Your task to perform on an android device: add a contact Image 0: 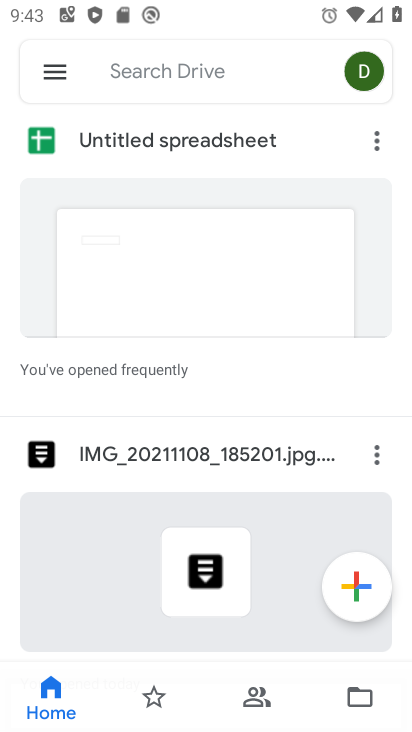
Step 0: press home button
Your task to perform on an android device: add a contact Image 1: 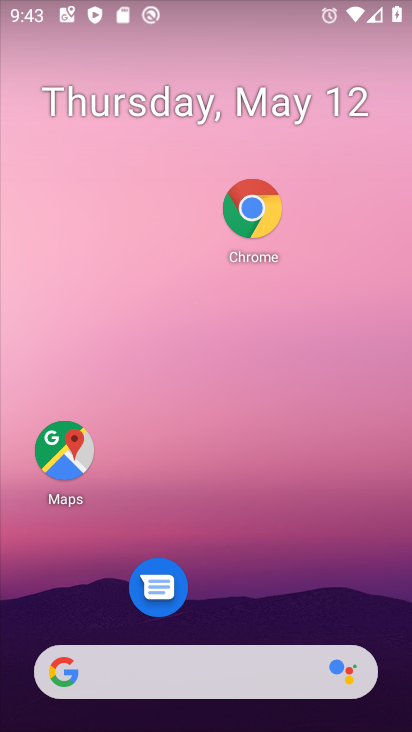
Step 1: drag from (268, 546) to (286, 259)
Your task to perform on an android device: add a contact Image 2: 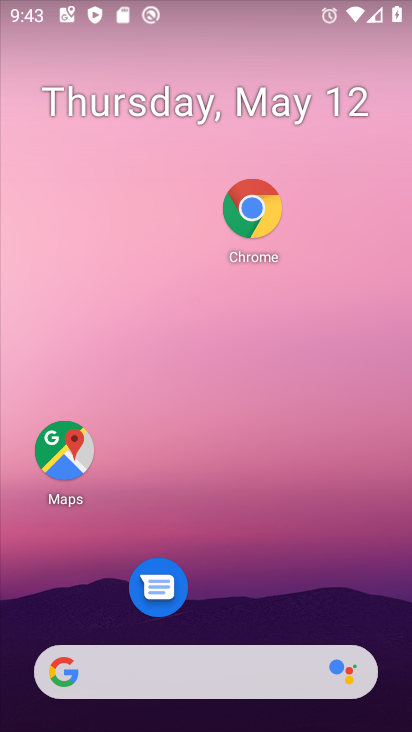
Step 2: drag from (303, 502) to (323, 245)
Your task to perform on an android device: add a contact Image 3: 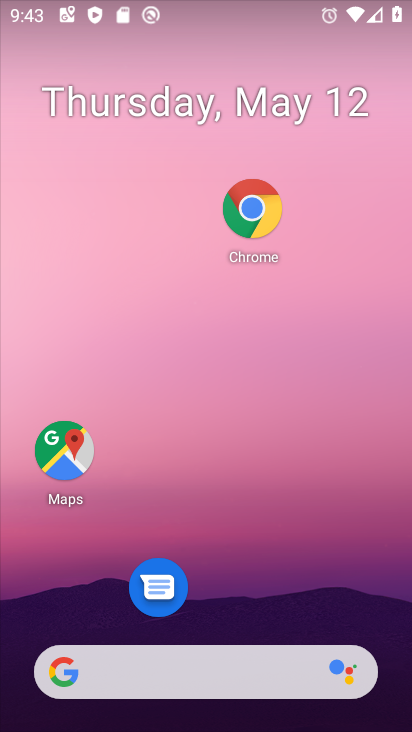
Step 3: drag from (288, 487) to (315, 11)
Your task to perform on an android device: add a contact Image 4: 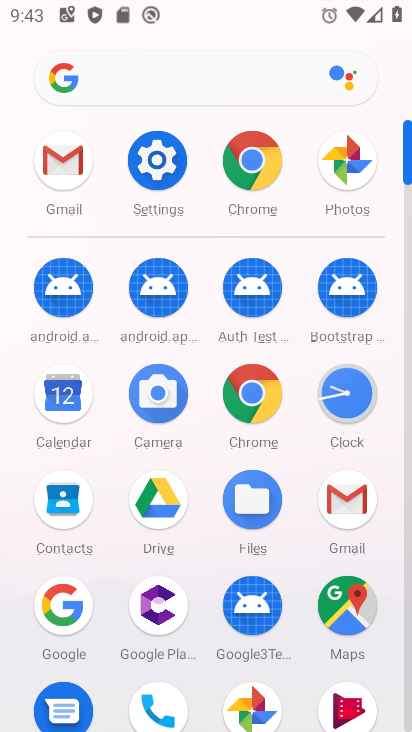
Step 4: click (156, 701)
Your task to perform on an android device: add a contact Image 5: 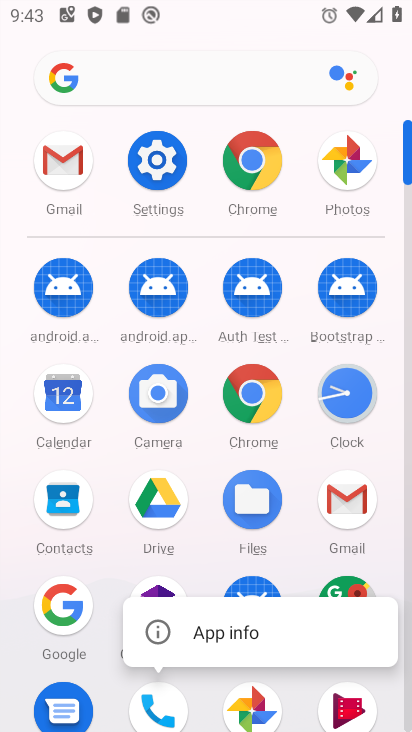
Step 5: drag from (219, 524) to (288, 182)
Your task to perform on an android device: add a contact Image 6: 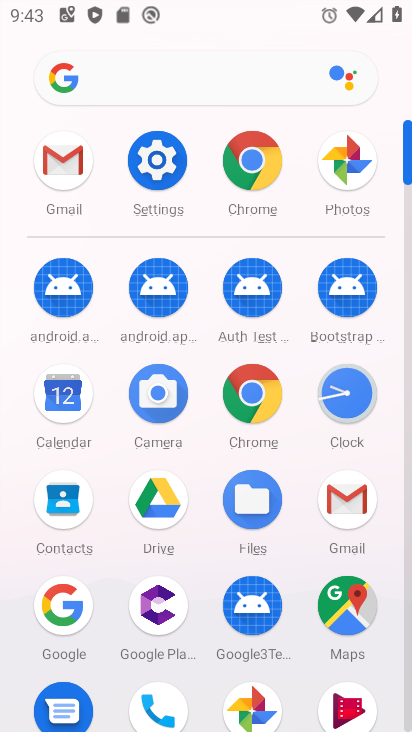
Step 6: drag from (256, 352) to (270, 130)
Your task to perform on an android device: add a contact Image 7: 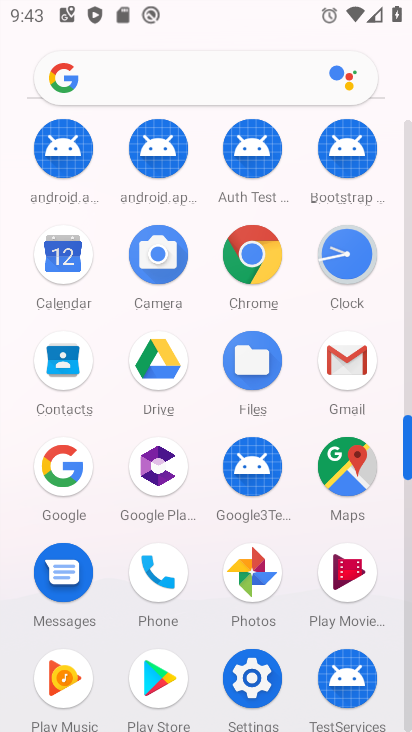
Step 7: click (152, 557)
Your task to perform on an android device: add a contact Image 8: 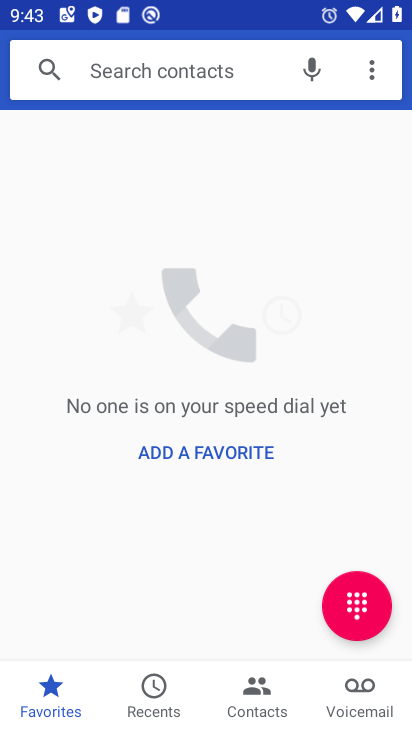
Step 8: click (165, 461)
Your task to perform on an android device: add a contact Image 9: 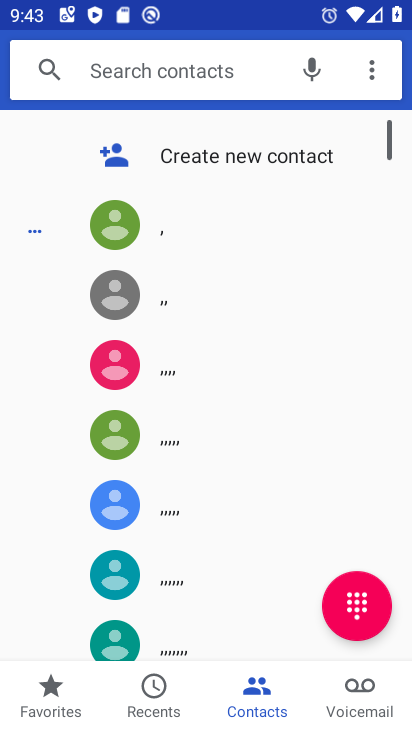
Step 9: click (213, 158)
Your task to perform on an android device: add a contact Image 10: 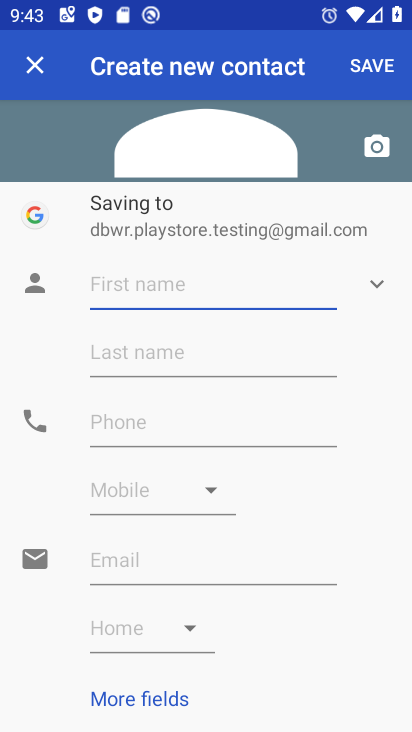
Step 10: type "mmmmmmmmmmmmmmmv"
Your task to perform on an android device: add a contact Image 11: 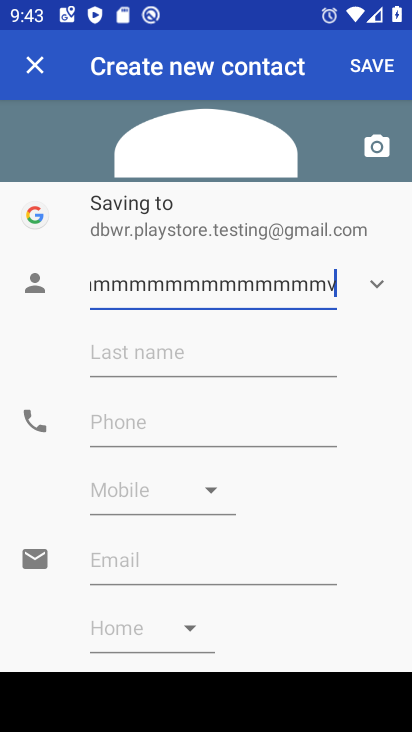
Step 11: click (175, 416)
Your task to perform on an android device: add a contact Image 12: 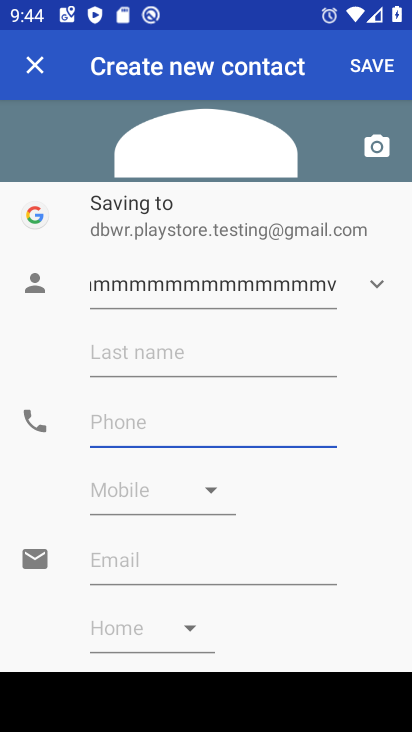
Step 12: type "66666666666"
Your task to perform on an android device: add a contact Image 13: 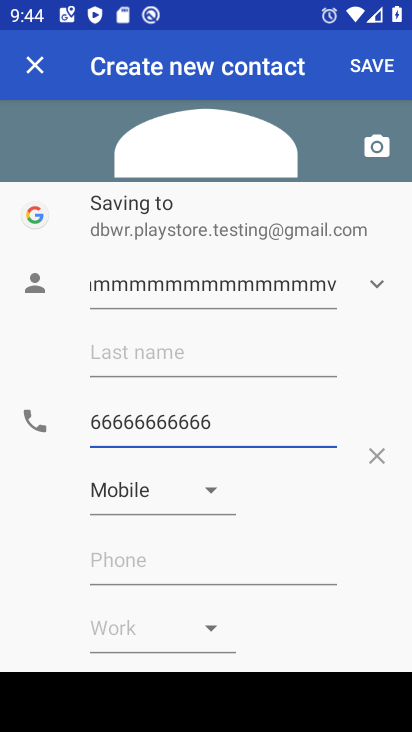
Step 13: click (355, 65)
Your task to perform on an android device: add a contact Image 14: 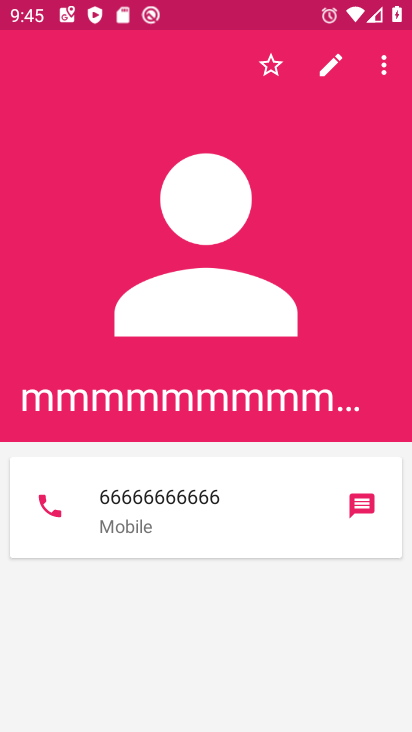
Step 14: task complete